Your task to perform on an android device: turn off smart reply in the gmail app Image 0: 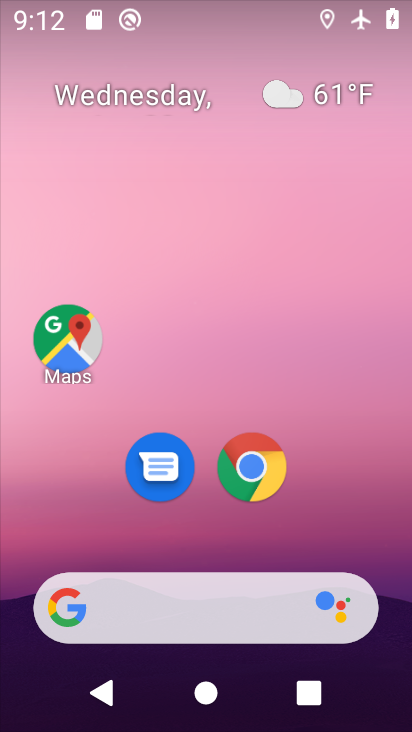
Step 0: drag from (359, 549) to (285, 162)
Your task to perform on an android device: turn off smart reply in the gmail app Image 1: 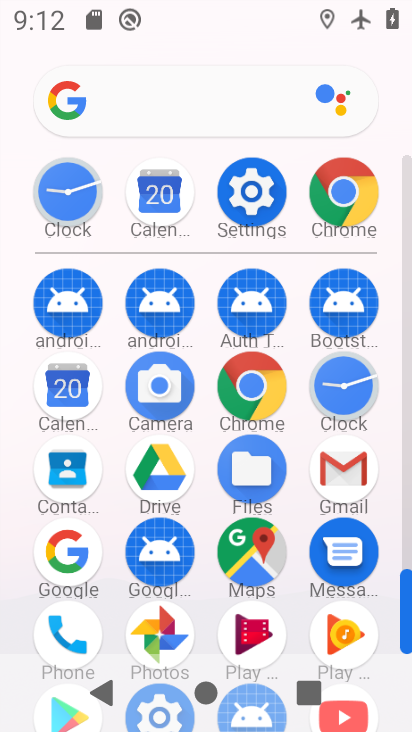
Step 1: click (351, 464)
Your task to perform on an android device: turn off smart reply in the gmail app Image 2: 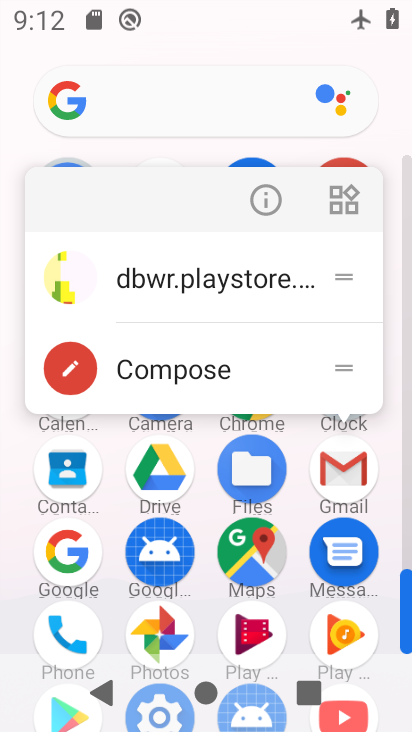
Step 2: click (351, 463)
Your task to perform on an android device: turn off smart reply in the gmail app Image 3: 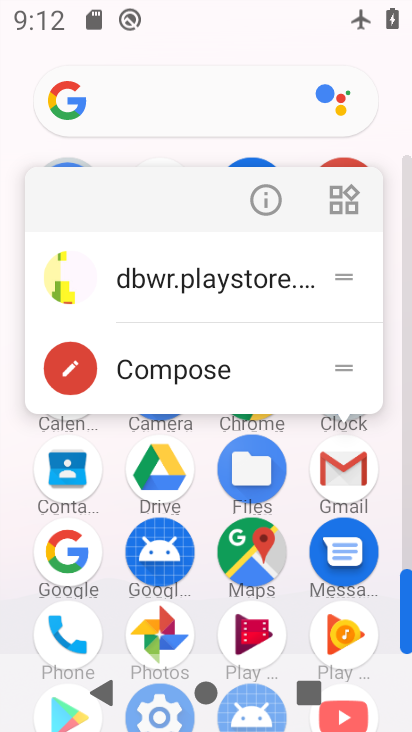
Step 3: click (350, 462)
Your task to perform on an android device: turn off smart reply in the gmail app Image 4: 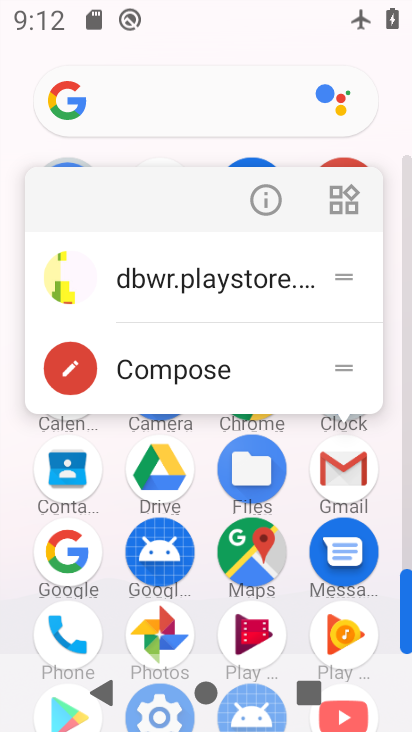
Step 4: click (350, 461)
Your task to perform on an android device: turn off smart reply in the gmail app Image 5: 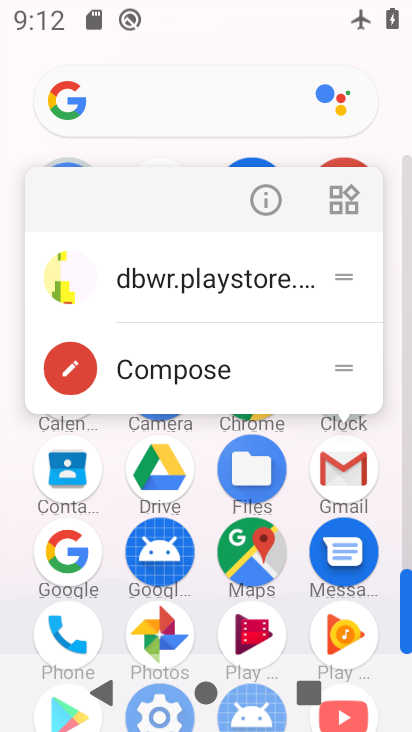
Step 5: click (350, 460)
Your task to perform on an android device: turn off smart reply in the gmail app Image 6: 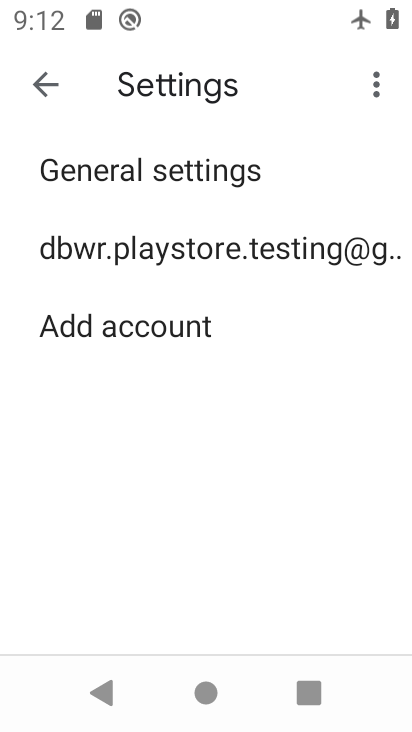
Step 6: click (143, 251)
Your task to perform on an android device: turn off smart reply in the gmail app Image 7: 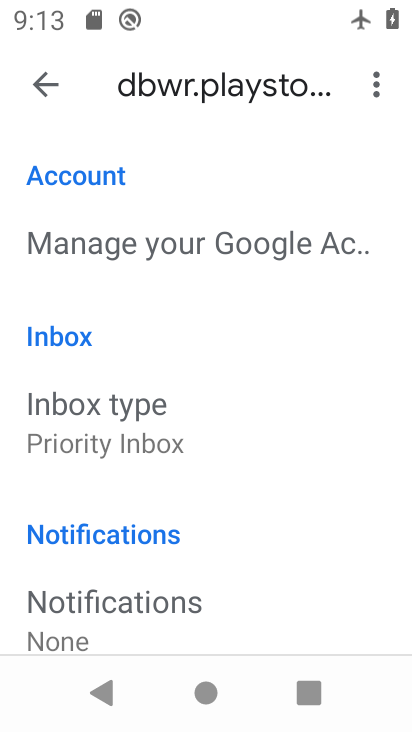
Step 7: drag from (198, 565) to (165, 273)
Your task to perform on an android device: turn off smart reply in the gmail app Image 8: 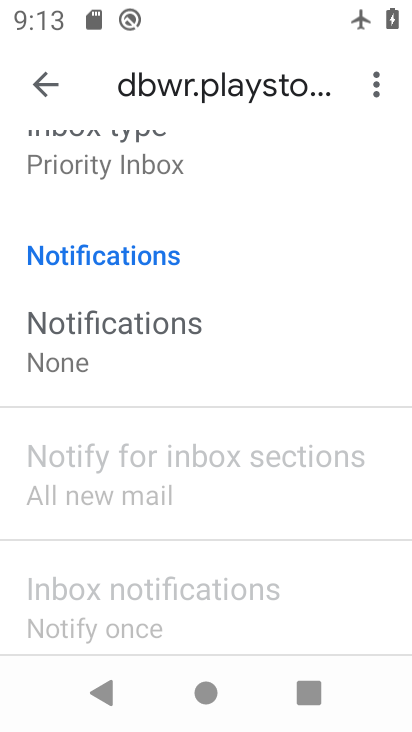
Step 8: drag from (166, 590) to (201, 288)
Your task to perform on an android device: turn off smart reply in the gmail app Image 9: 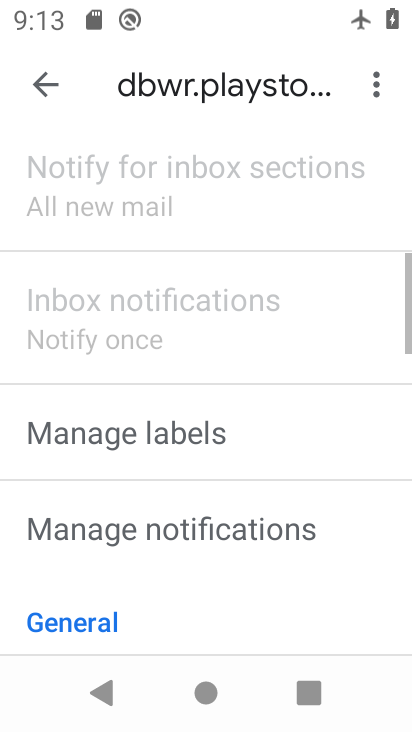
Step 9: drag from (192, 521) to (168, 197)
Your task to perform on an android device: turn off smart reply in the gmail app Image 10: 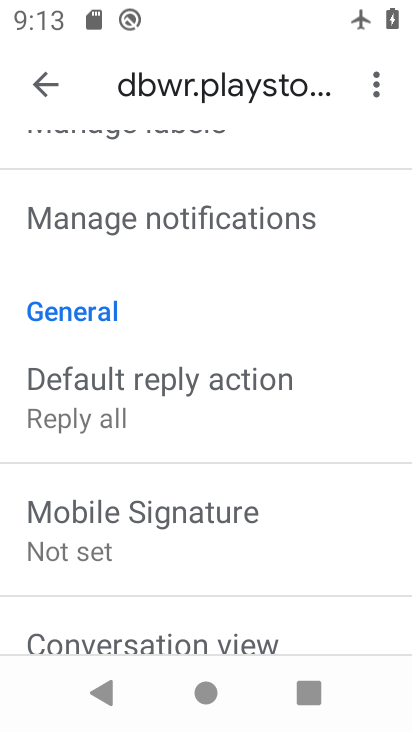
Step 10: drag from (179, 586) to (193, 282)
Your task to perform on an android device: turn off smart reply in the gmail app Image 11: 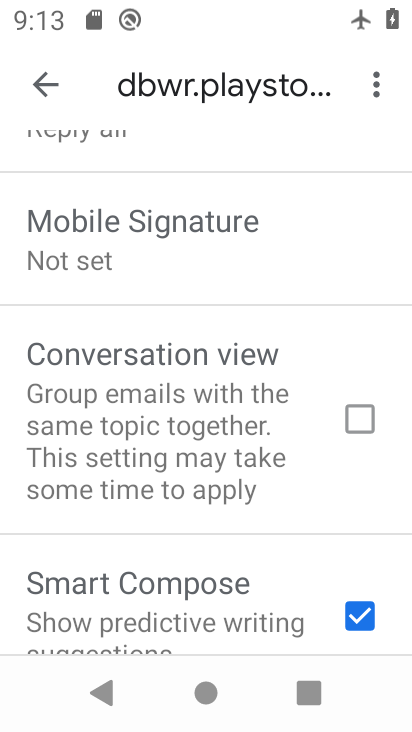
Step 11: drag from (200, 568) to (234, 321)
Your task to perform on an android device: turn off smart reply in the gmail app Image 12: 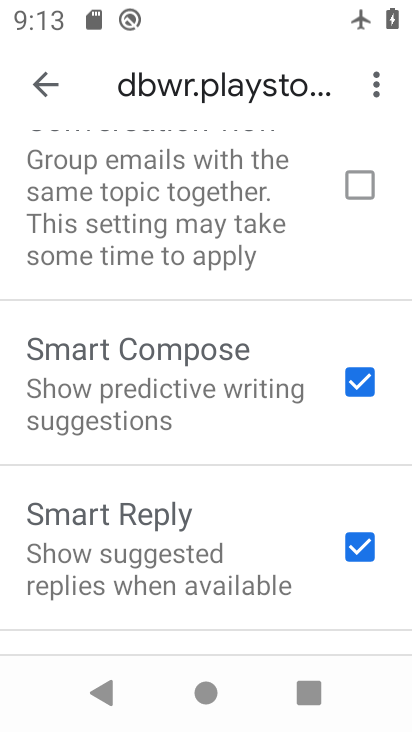
Step 12: click (363, 549)
Your task to perform on an android device: turn off smart reply in the gmail app Image 13: 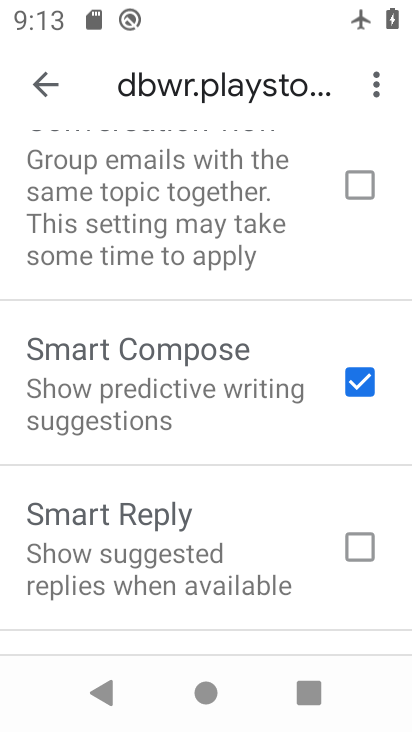
Step 13: task complete